Your task to perform on an android device: Go to Android settings Image 0: 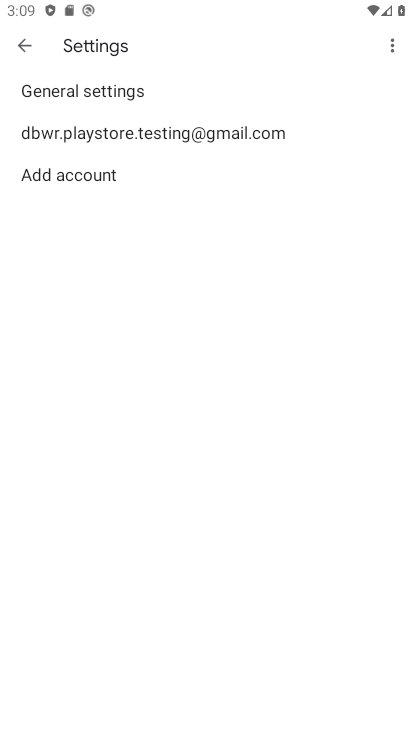
Step 0: press home button
Your task to perform on an android device: Go to Android settings Image 1: 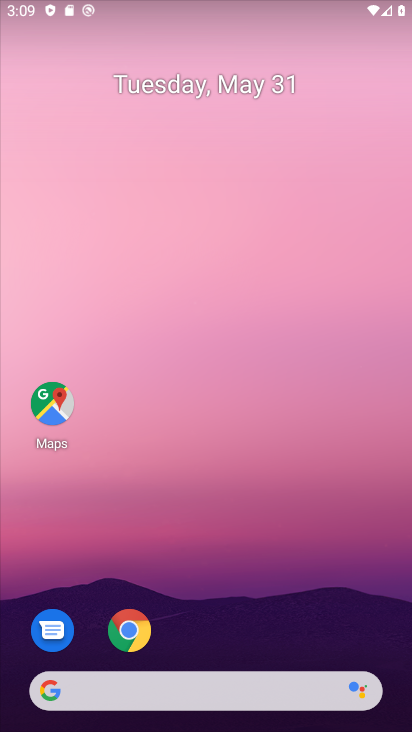
Step 1: drag from (218, 580) to (240, 4)
Your task to perform on an android device: Go to Android settings Image 2: 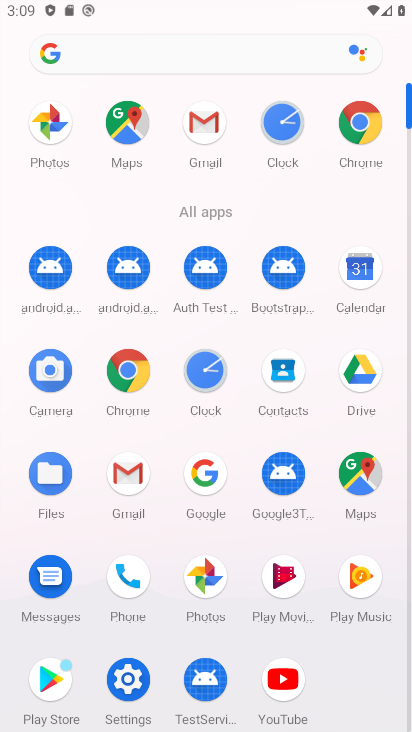
Step 2: click (125, 678)
Your task to perform on an android device: Go to Android settings Image 3: 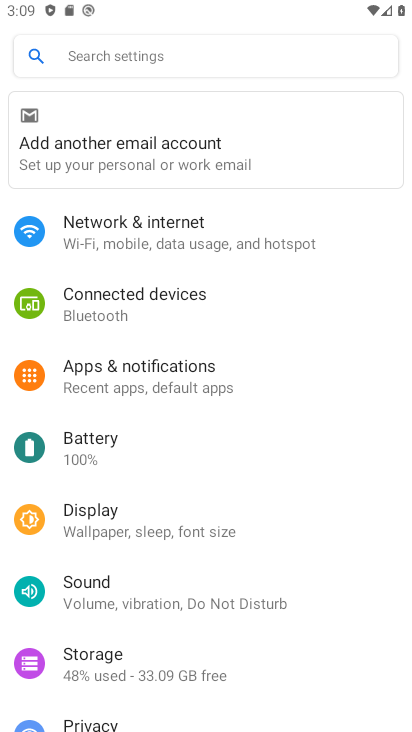
Step 3: drag from (238, 692) to (274, 147)
Your task to perform on an android device: Go to Android settings Image 4: 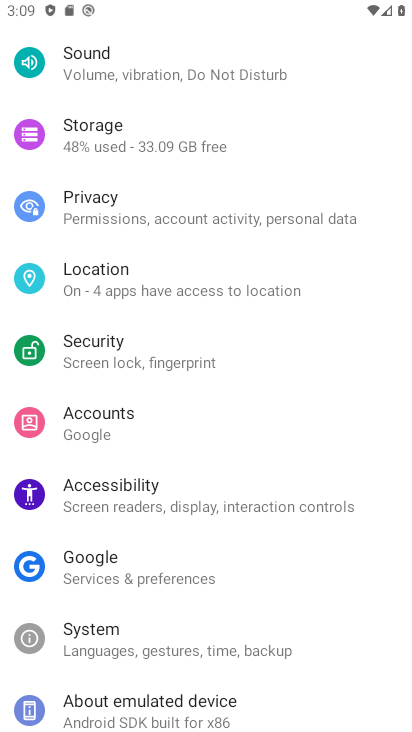
Step 4: click (186, 693)
Your task to perform on an android device: Go to Android settings Image 5: 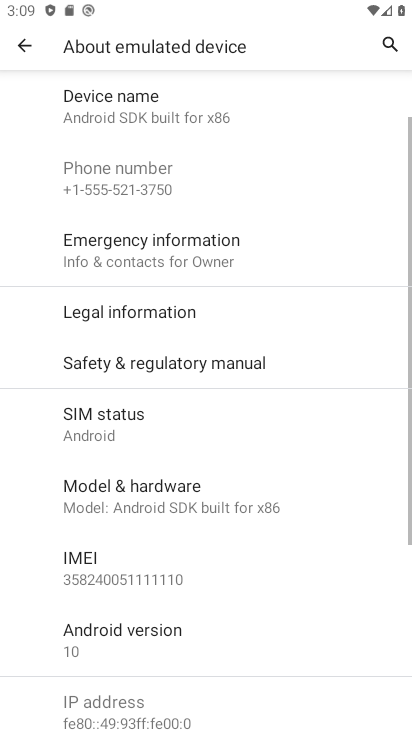
Step 5: task complete